Your task to perform on an android device: Go to Reddit.com Image 0: 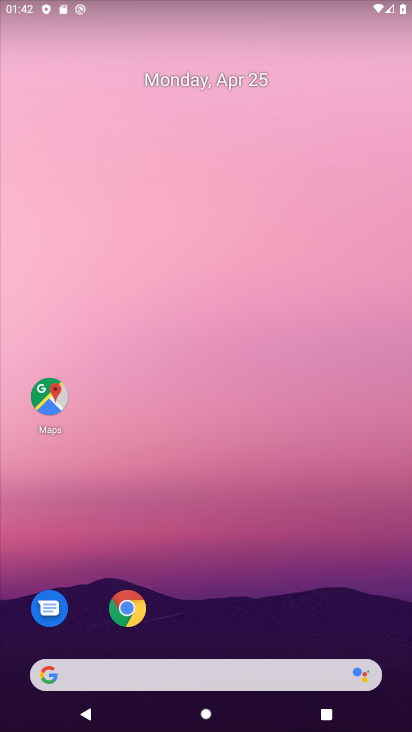
Step 0: click (175, 675)
Your task to perform on an android device: Go to Reddit.com Image 1: 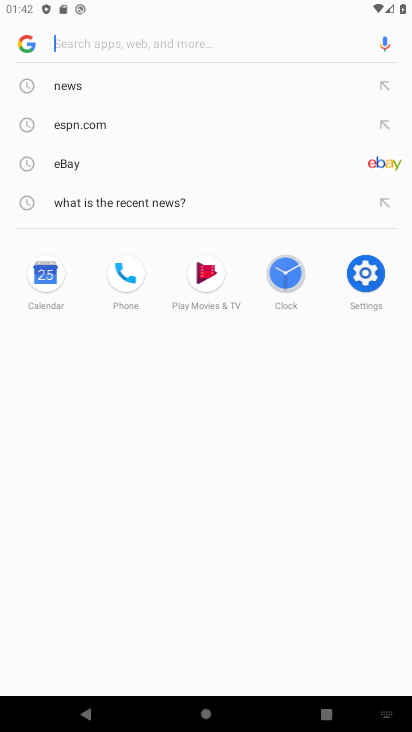
Step 1: type "Reddit.com"
Your task to perform on an android device: Go to Reddit.com Image 2: 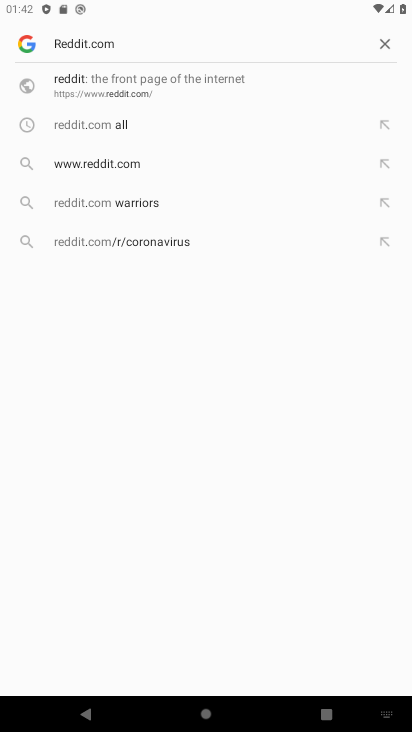
Step 2: click (122, 165)
Your task to perform on an android device: Go to Reddit.com Image 3: 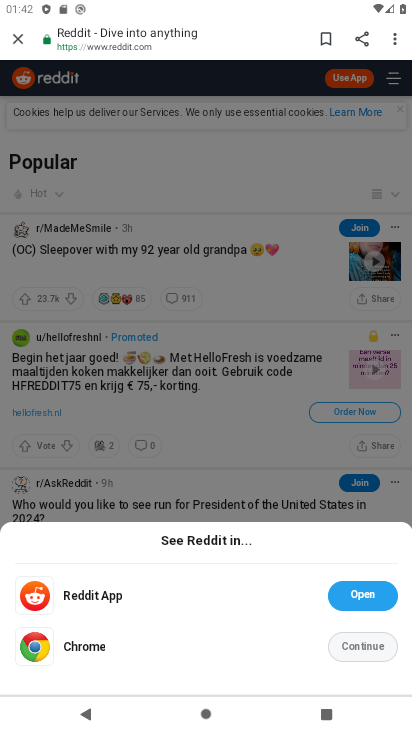
Step 3: click (369, 646)
Your task to perform on an android device: Go to Reddit.com Image 4: 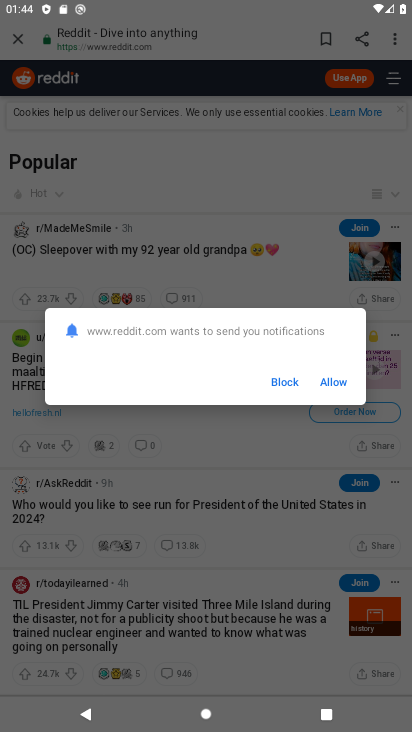
Step 4: task complete